Your task to perform on an android device: What's the weather going to be this weekend? Image 0: 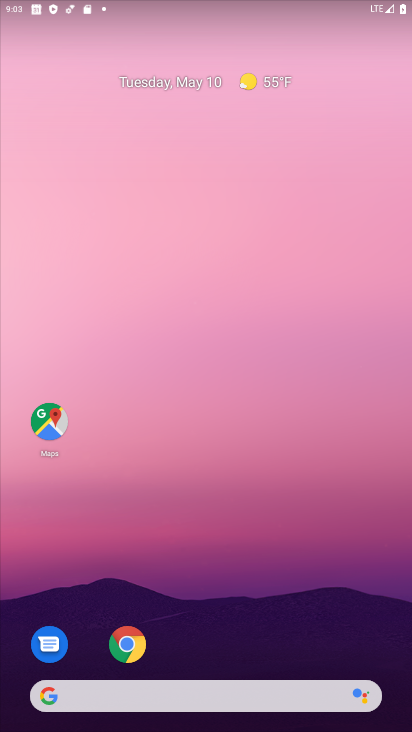
Step 0: drag from (288, 628) to (226, 270)
Your task to perform on an android device: What's the weather going to be this weekend? Image 1: 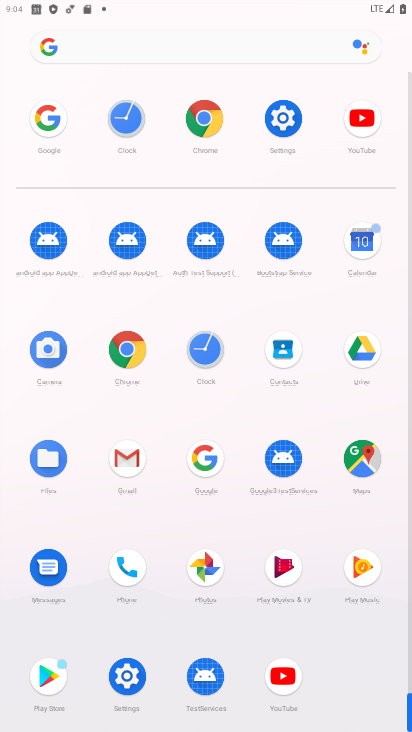
Step 1: click (211, 464)
Your task to perform on an android device: What's the weather going to be this weekend? Image 2: 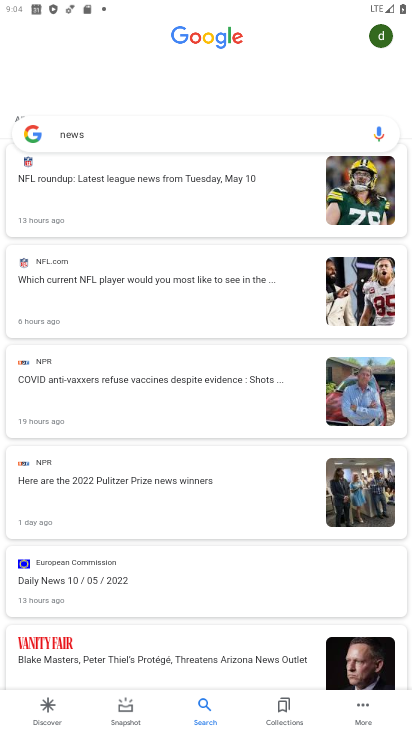
Step 2: click (261, 138)
Your task to perform on an android device: What's the weather going to be this weekend? Image 3: 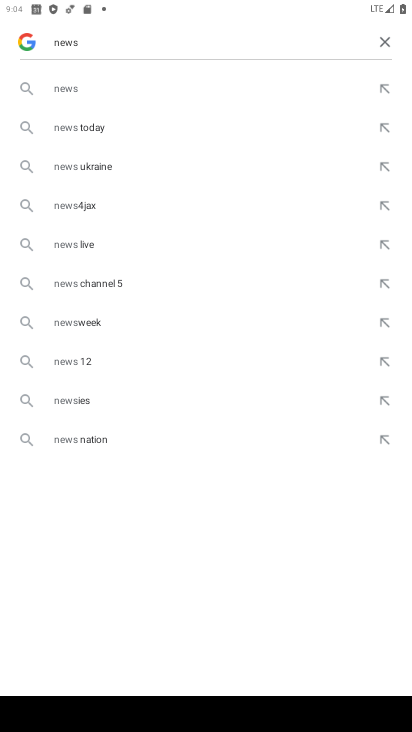
Step 3: click (381, 39)
Your task to perform on an android device: What's the weather going to be this weekend? Image 4: 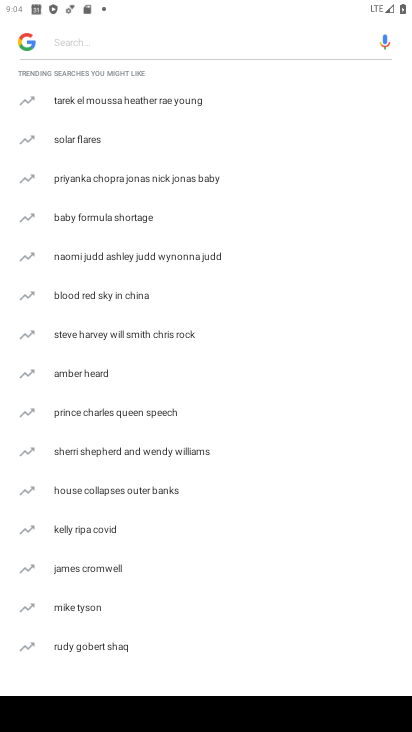
Step 4: type "weather"
Your task to perform on an android device: What's the weather going to be this weekend? Image 5: 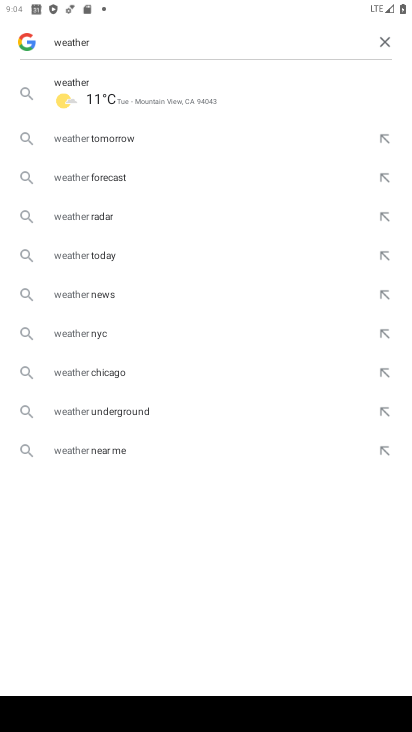
Step 5: click (178, 83)
Your task to perform on an android device: What's the weather going to be this weekend? Image 6: 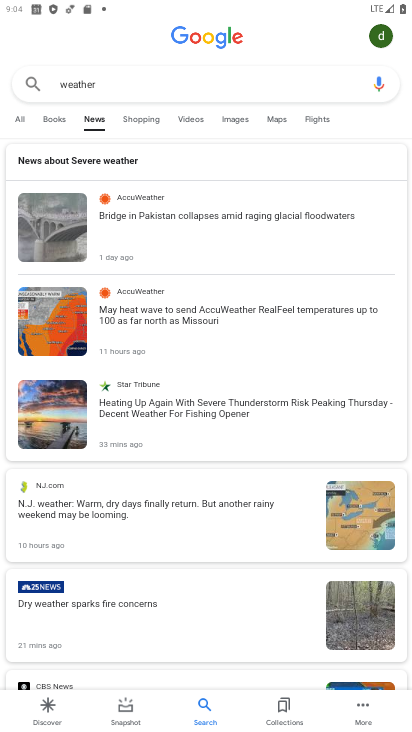
Step 6: click (23, 119)
Your task to perform on an android device: What's the weather going to be this weekend? Image 7: 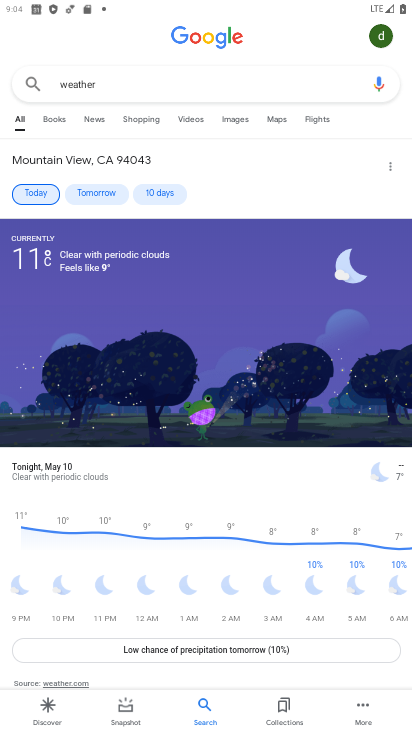
Step 7: click (163, 195)
Your task to perform on an android device: What's the weather going to be this weekend? Image 8: 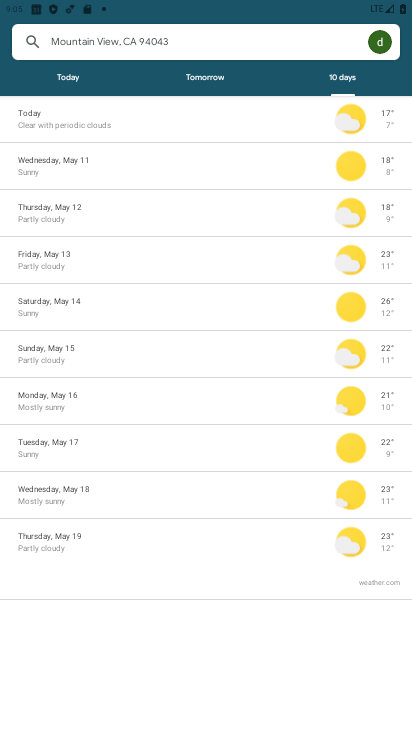
Step 8: task complete